Your task to perform on an android device: create a new album in the google photos Image 0: 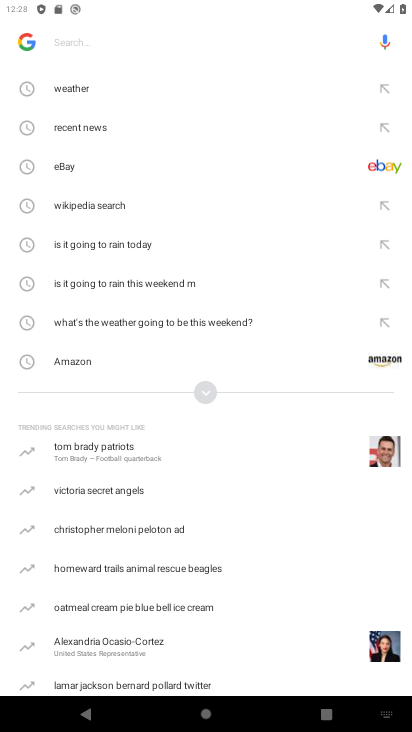
Step 0: press home button
Your task to perform on an android device: create a new album in the google photos Image 1: 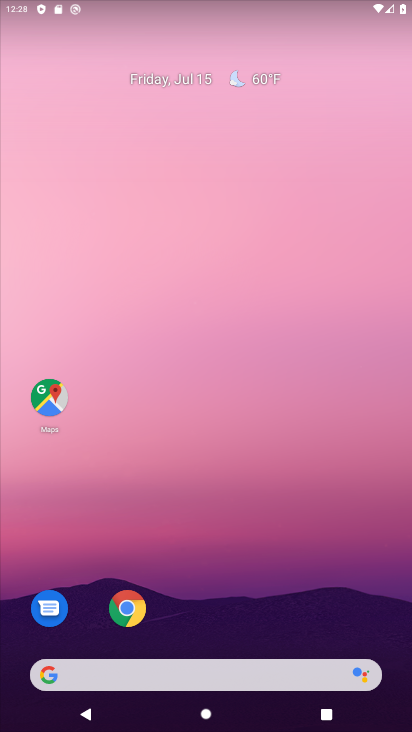
Step 1: drag from (278, 606) to (327, 104)
Your task to perform on an android device: create a new album in the google photos Image 2: 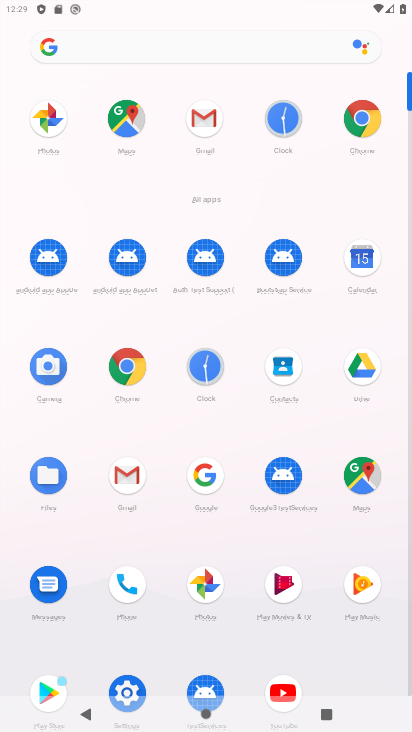
Step 2: click (195, 581)
Your task to perform on an android device: create a new album in the google photos Image 3: 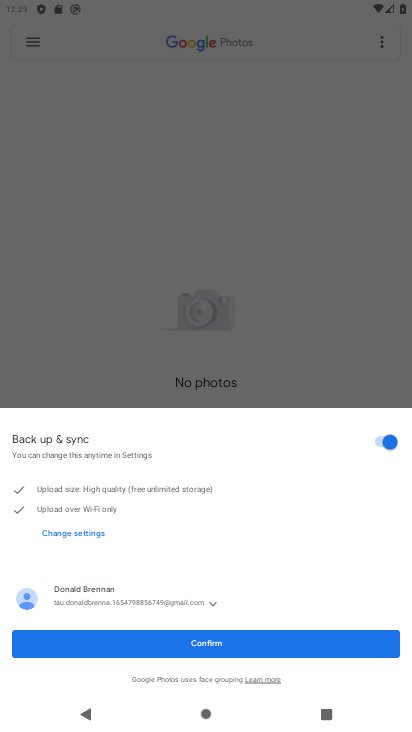
Step 3: click (293, 648)
Your task to perform on an android device: create a new album in the google photos Image 4: 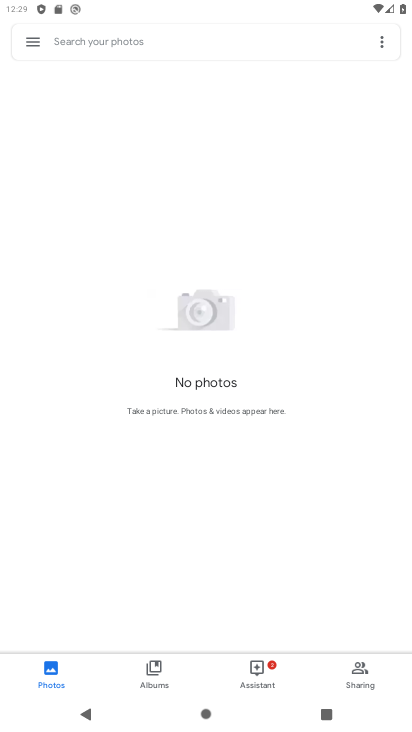
Step 4: click (146, 482)
Your task to perform on an android device: create a new album in the google photos Image 5: 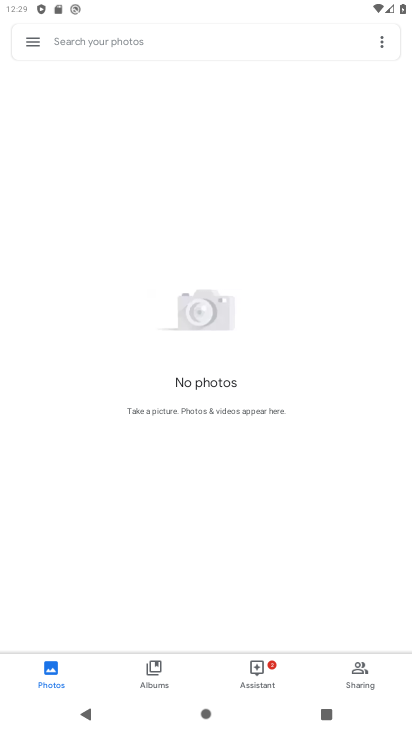
Step 5: task complete